Your task to perform on an android device: Open the calendar app, open the side menu, and click the "Day" option Image 0: 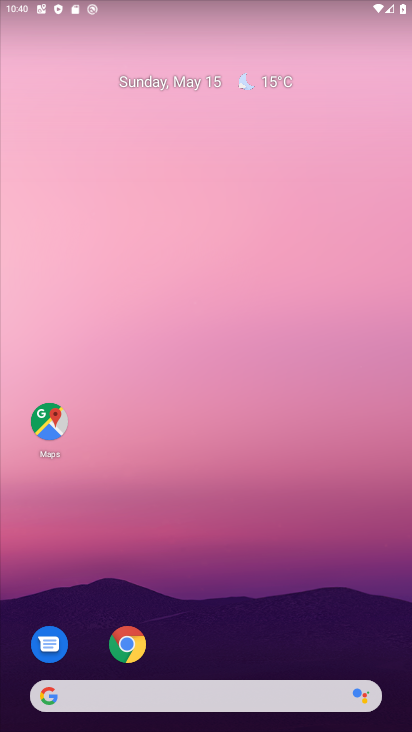
Step 0: drag from (227, 620) to (191, 154)
Your task to perform on an android device: Open the calendar app, open the side menu, and click the "Day" option Image 1: 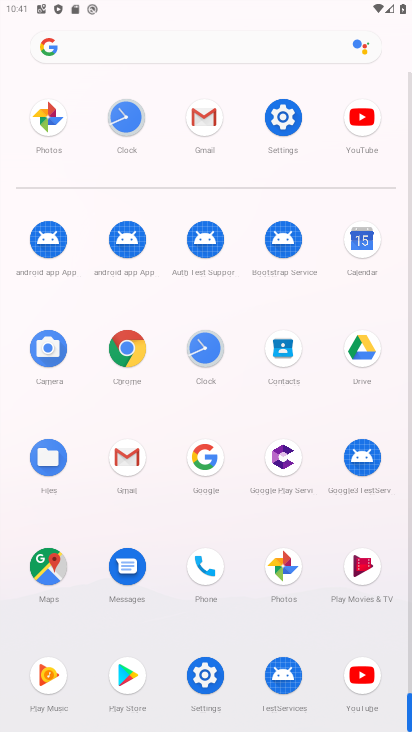
Step 1: click (366, 240)
Your task to perform on an android device: Open the calendar app, open the side menu, and click the "Day" option Image 2: 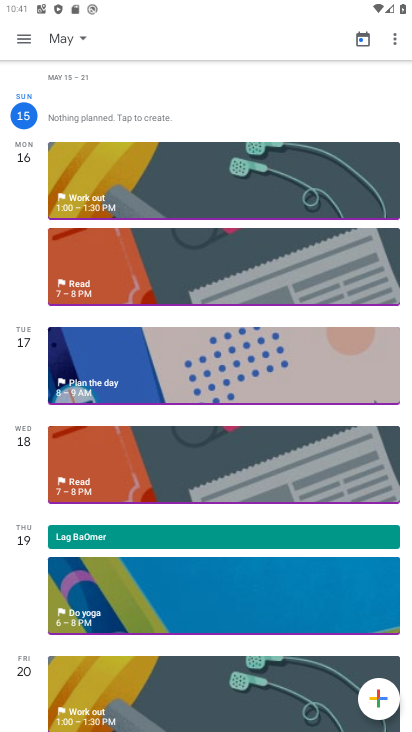
Step 2: click (24, 34)
Your task to perform on an android device: Open the calendar app, open the side menu, and click the "Day" option Image 3: 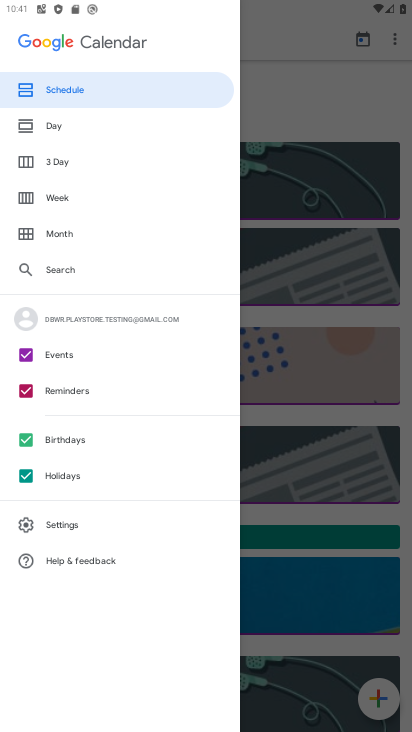
Step 3: click (62, 129)
Your task to perform on an android device: Open the calendar app, open the side menu, and click the "Day" option Image 4: 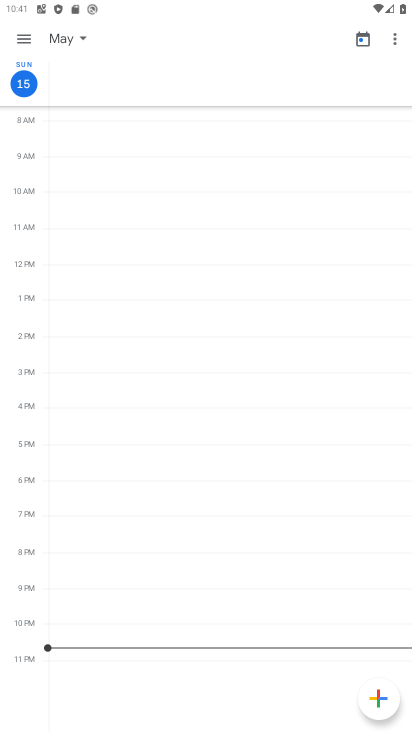
Step 4: task complete